Your task to perform on an android device: turn off location history Image 0: 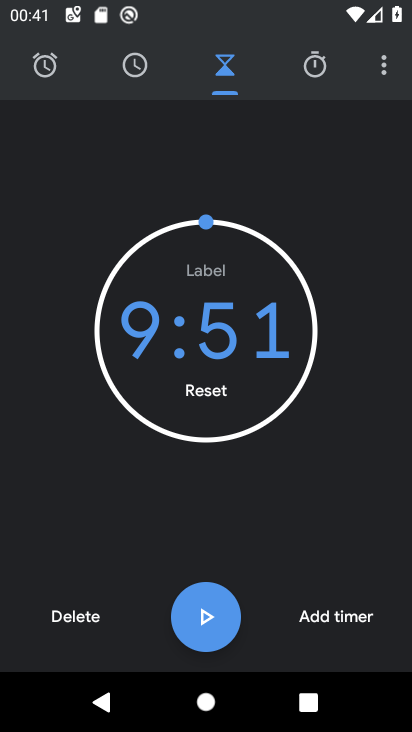
Step 0: press home button
Your task to perform on an android device: turn off location history Image 1: 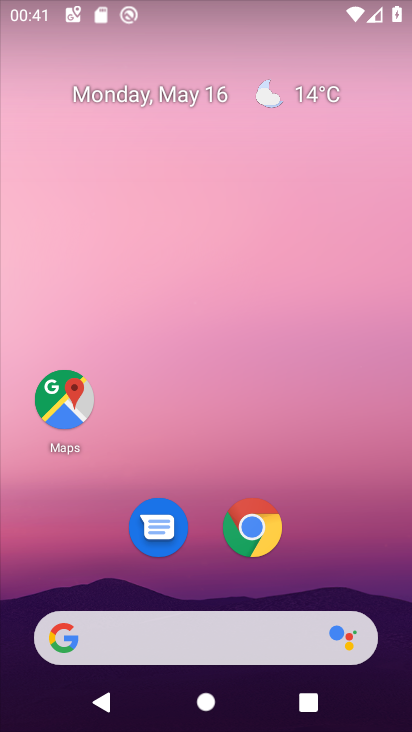
Step 1: drag from (204, 527) to (215, 36)
Your task to perform on an android device: turn off location history Image 2: 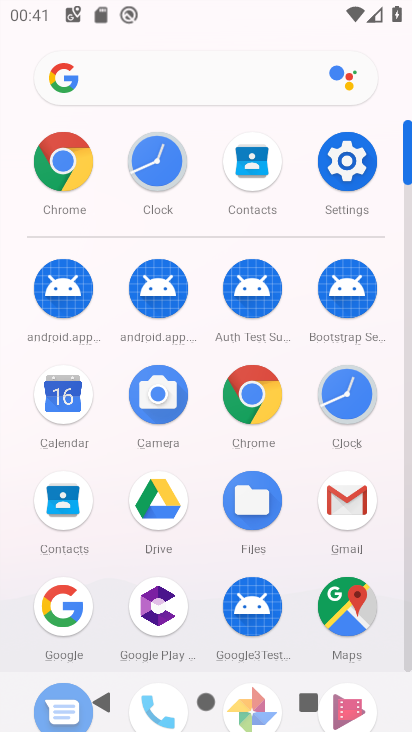
Step 2: click (353, 182)
Your task to perform on an android device: turn off location history Image 3: 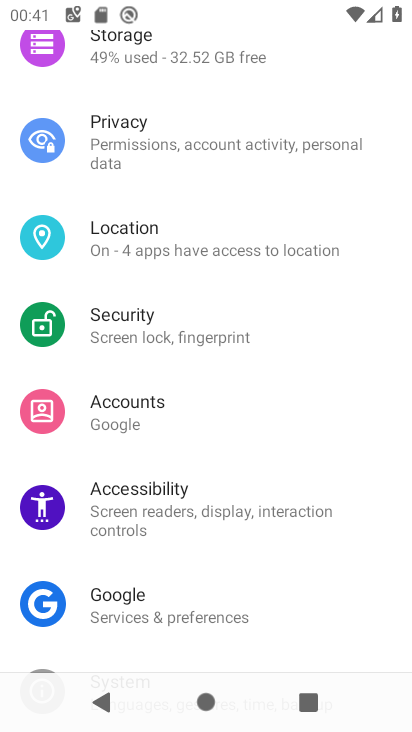
Step 3: click (161, 253)
Your task to perform on an android device: turn off location history Image 4: 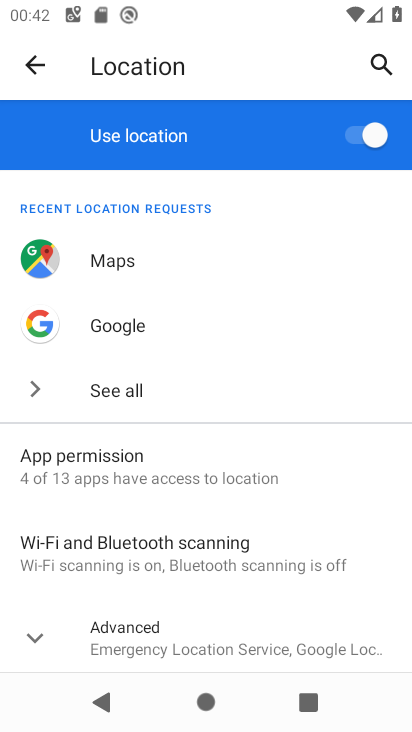
Step 4: drag from (168, 520) to (185, 323)
Your task to perform on an android device: turn off location history Image 5: 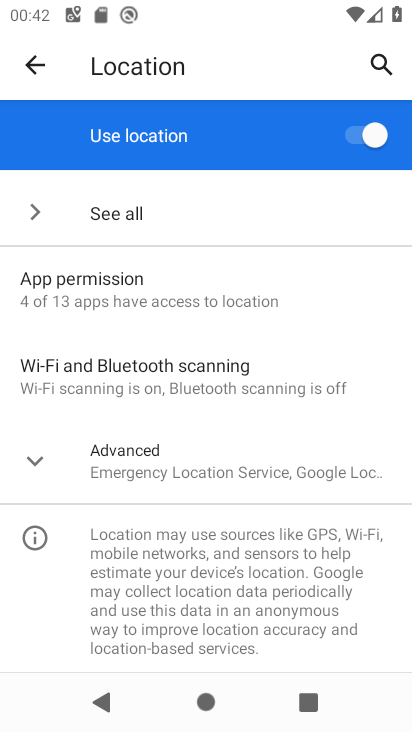
Step 5: click (180, 471)
Your task to perform on an android device: turn off location history Image 6: 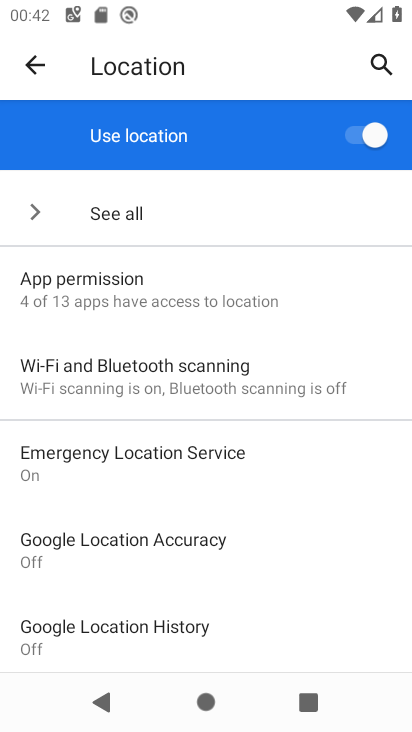
Step 6: drag from (186, 597) to (187, 476)
Your task to perform on an android device: turn off location history Image 7: 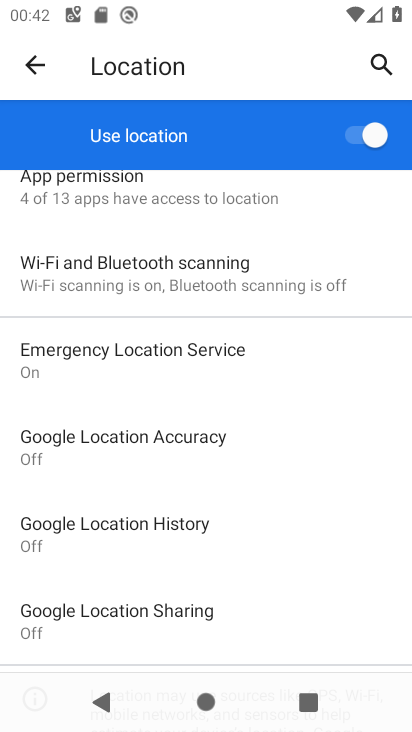
Step 7: click (144, 538)
Your task to perform on an android device: turn off location history Image 8: 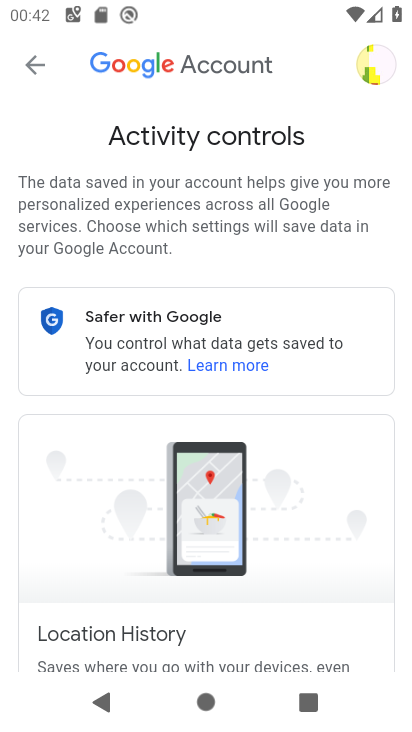
Step 8: task complete